Your task to perform on an android device: What's the weather going to be this weekend? Image 0: 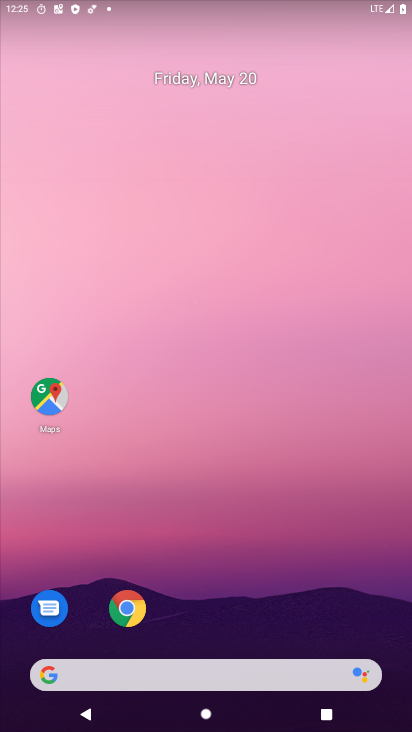
Step 0: drag from (287, 587) to (267, 155)
Your task to perform on an android device: What's the weather going to be this weekend? Image 1: 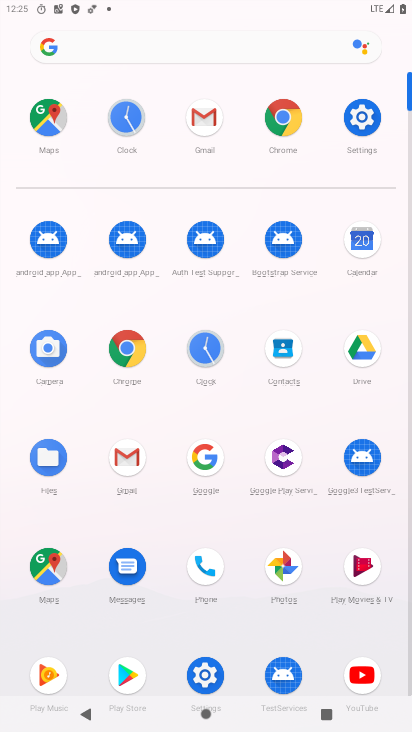
Step 1: click (128, 343)
Your task to perform on an android device: What's the weather going to be this weekend? Image 2: 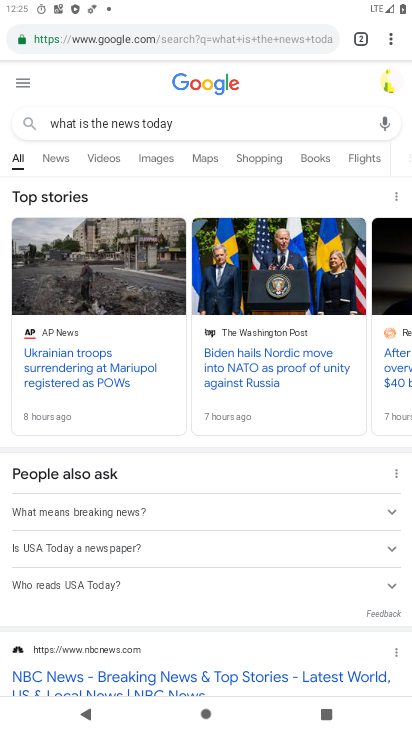
Step 2: click (137, 38)
Your task to perform on an android device: What's the weather going to be this weekend? Image 3: 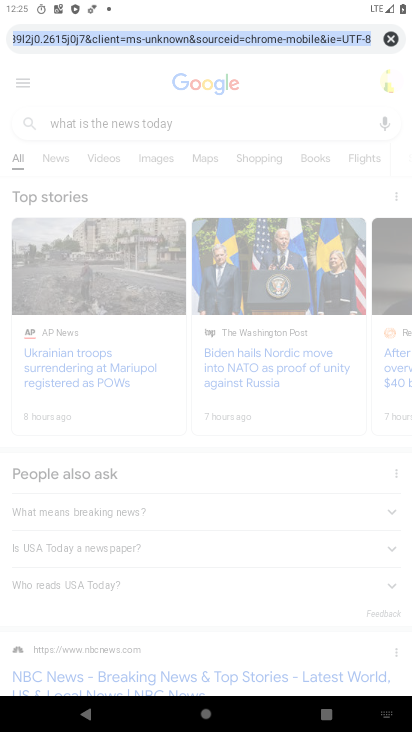
Step 3: click (389, 41)
Your task to perform on an android device: What's the weather going to be this weekend? Image 4: 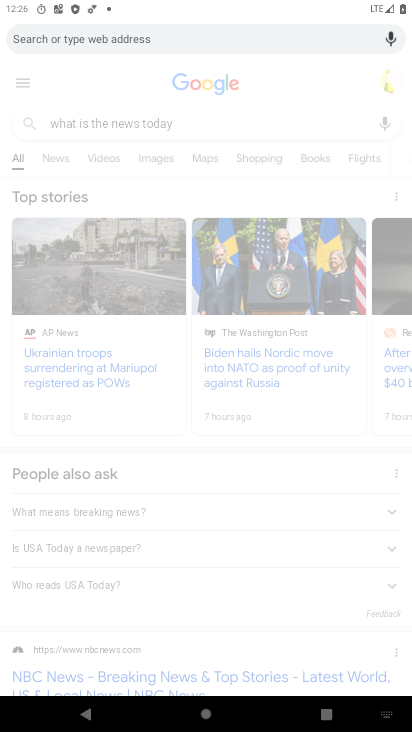
Step 4: type "what's the weather going to be this weekend"
Your task to perform on an android device: What's the weather going to be this weekend? Image 5: 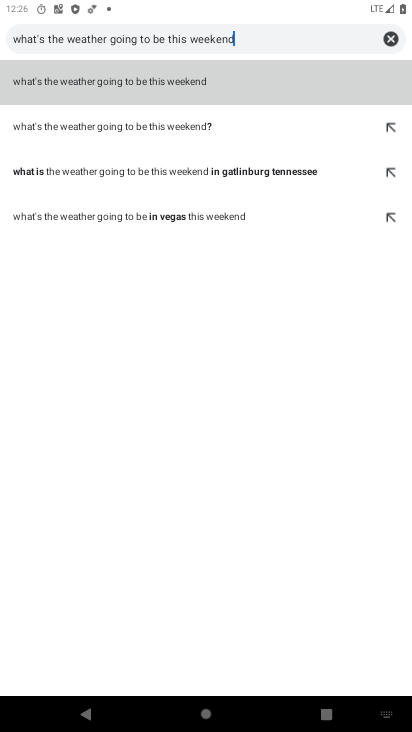
Step 5: click (183, 122)
Your task to perform on an android device: What's the weather going to be this weekend? Image 6: 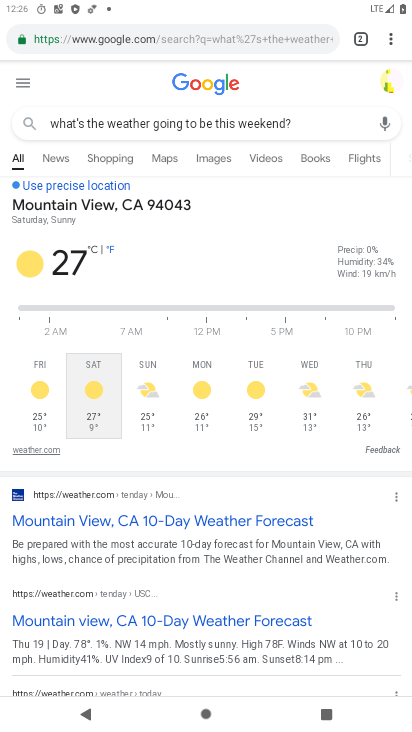
Step 6: task complete